Your task to perform on an android device: open app "Google Pay: Save, Pay, Manage" (install if not already installed) Image 0: 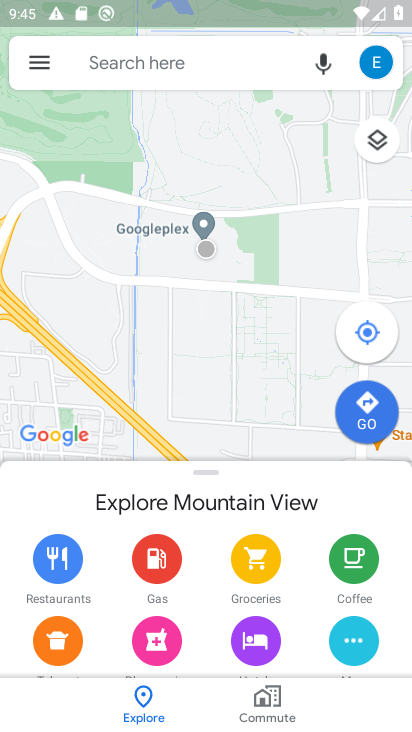
Step 0: press home button
Your task to perform on an android device: open app "Google Pay: Save, Pay, Manage" (install if not already installed) Image 1: 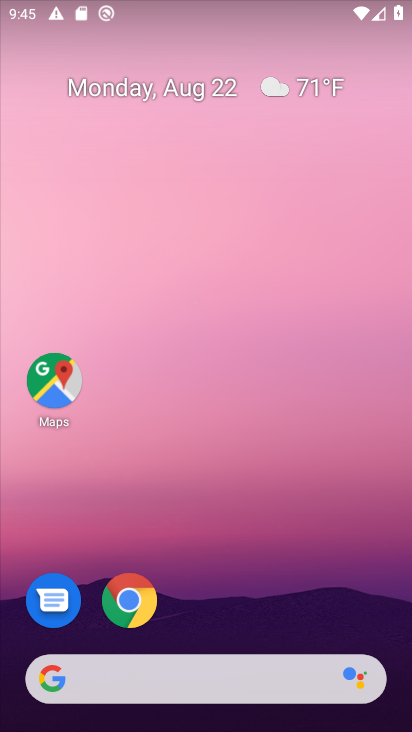
Step 1: drag from (221, 442) to (235, 150)
Your task to perform on an android device: open app "Google Pay: Save, Pay, Manage" (install if not already installed) Image 2: 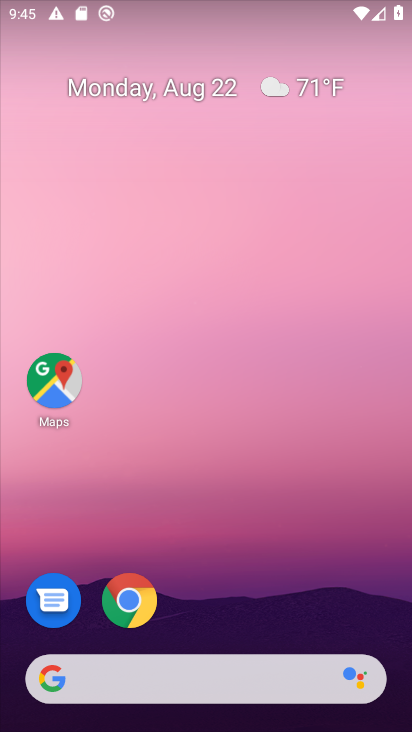
Step 2: drag from (213, 562) to (211, 124)
Your task to perform on an android device: open app "Google Pay: Save, Pay, Manage" (install if not already installed) Image 3: 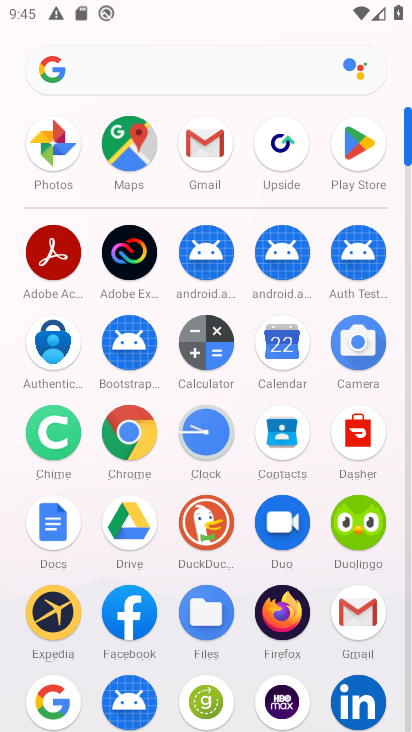
Step 3: click (343, 136)
Your task to perform on an android device: open app "Google Pay: Save, Pay, Manage" (install if not already installed) Image 4: 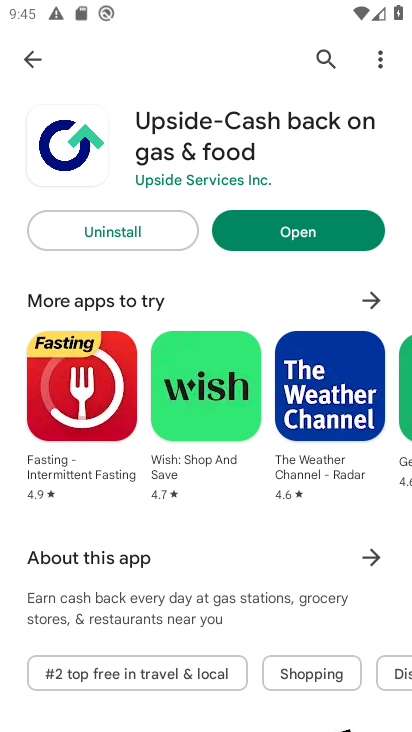
Step 4: click (331, 60)
Your task to perform on an android device: open app "Google Pay: Save, Pay, Manage" (install if not already installed) Image 5: 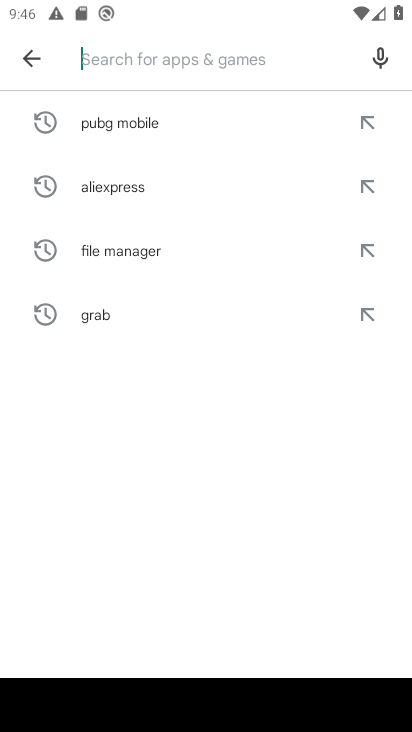
Step 5: click (219, 64)
Your task to perform on an android device: open app "Google Pay: Save, Pay, Manage" (install if not already installed) Image 6: 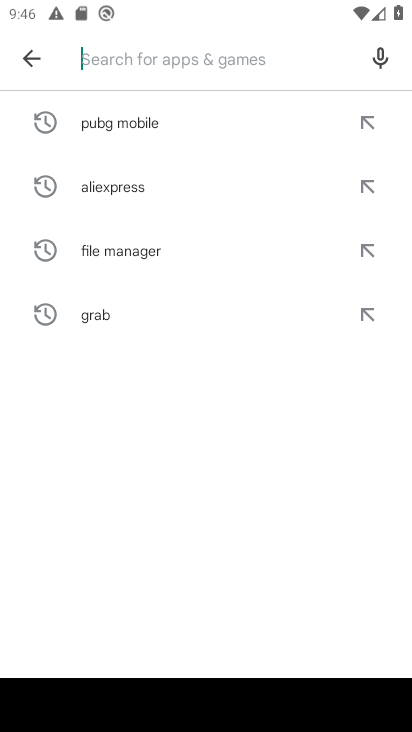
Step 6: type "Google Pay: Save, Pay, Manage"
Your task to perform on an android device: open app "Google Pay: Save, Pay, Manage" (install if not already installed) Image 7: 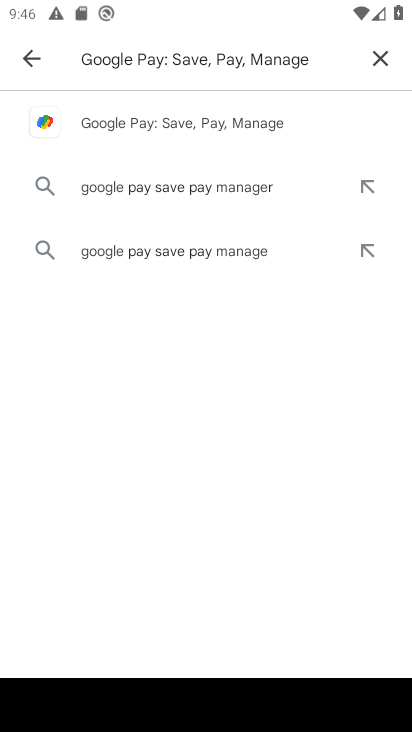
Step 7: click (186, 134)
Your task to perform on an android device: open app "Google Pay: Save, Pay, Manage" (install if not already installed) Image 8: 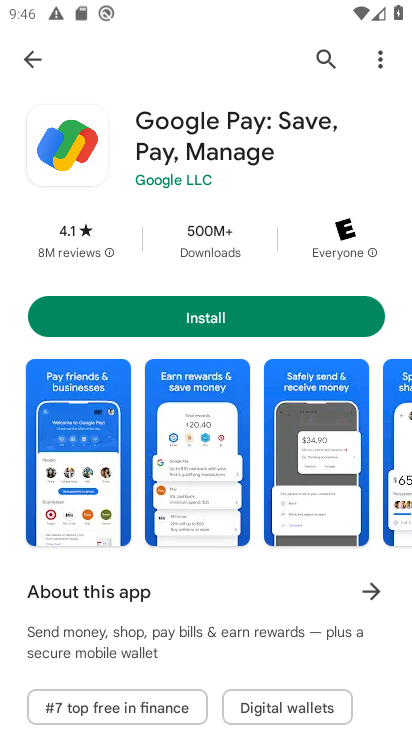
Step 8: click (173, 304)
Your task to perform on an android device: open app "Google Pay: Save, Pay, Manage" (install if not already installed) Image 9: 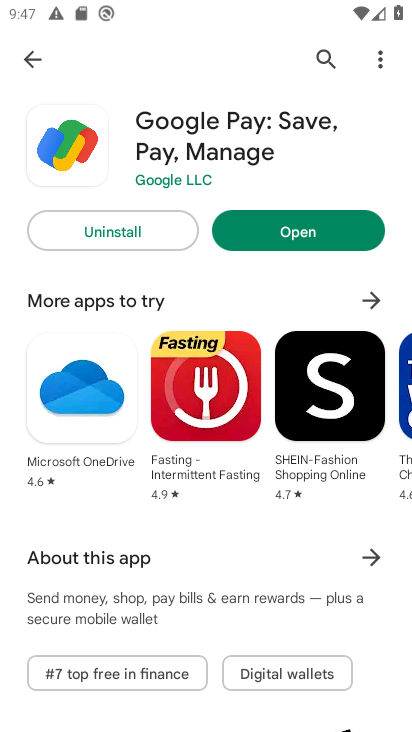
Step 9: click (312, 219)
Your task to perform on an android device: open app "Google Pay: Save, Pay, Manage" (install if not already installed) Image 10: 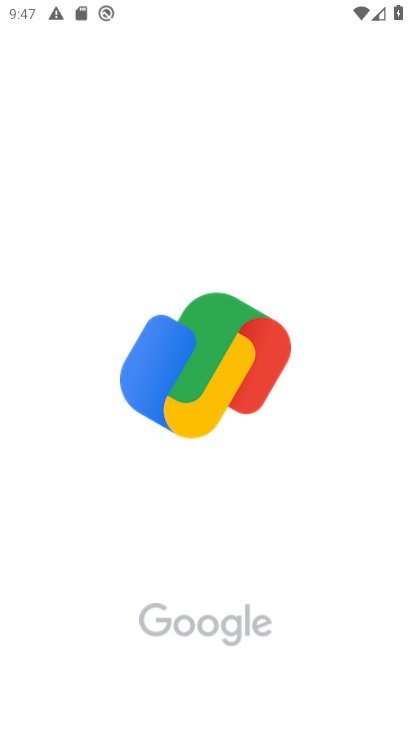
Step 10: task complete